Your task to perform on an android device: Go to accessibility settings Image 0: 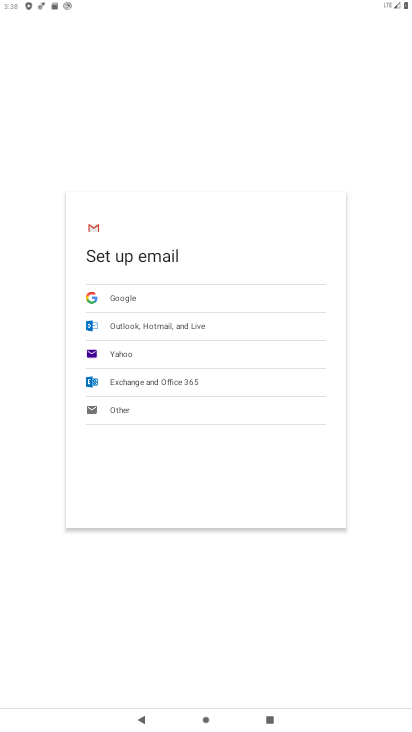
Step 0: press home button
Your task to perform on an android device: Go to accessibility settings Image 1: 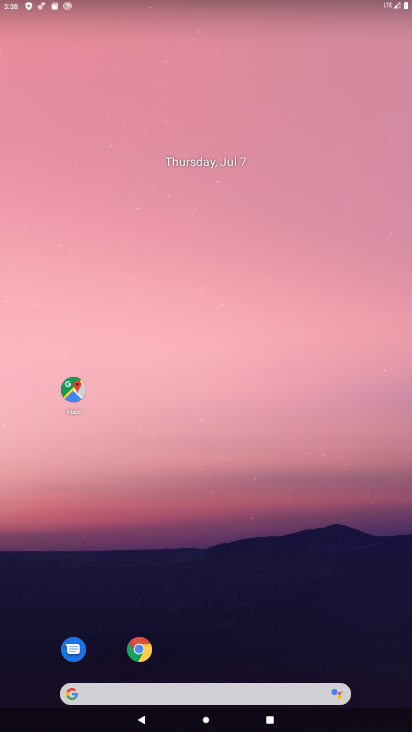
Step 1: drag from (185, 635) to (331, 119)
Your task to perform on an android device: Go to accessibility settings Image 2: 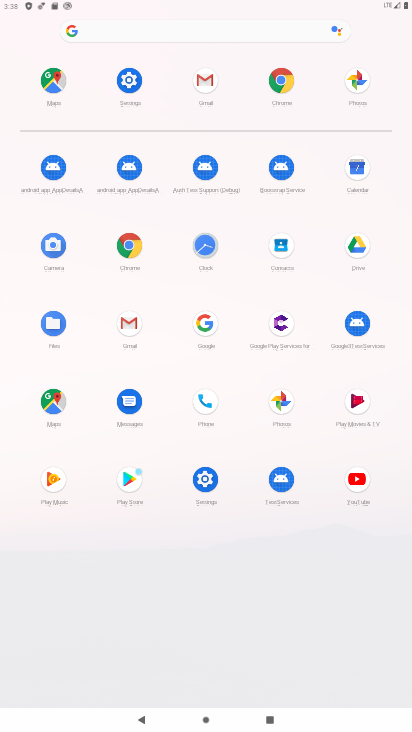
Step 2: click (128, 83)
Your task to perform on an android device: Go to accessibility settings Image 3: 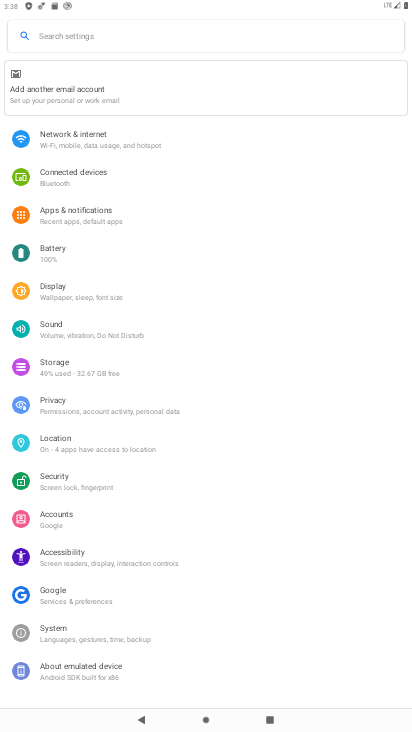
Step 3: click (93, 560)
Your task to perform on an android device: Go to accessibility settings Image 4: 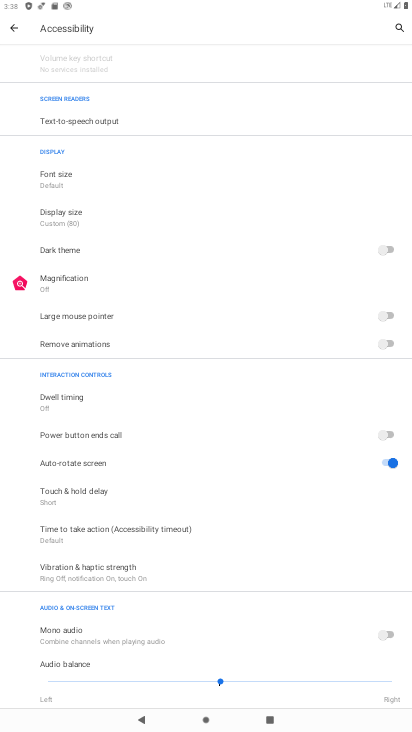
Step 4: task complete